Your task to perform on an android device: Open privacy settings Image 0: 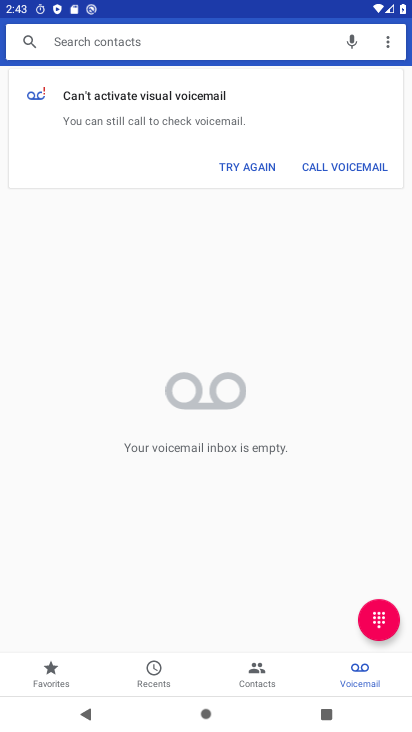
Step 0: press home button
Your task to perform on an android device: Open privacy settings Image 1: 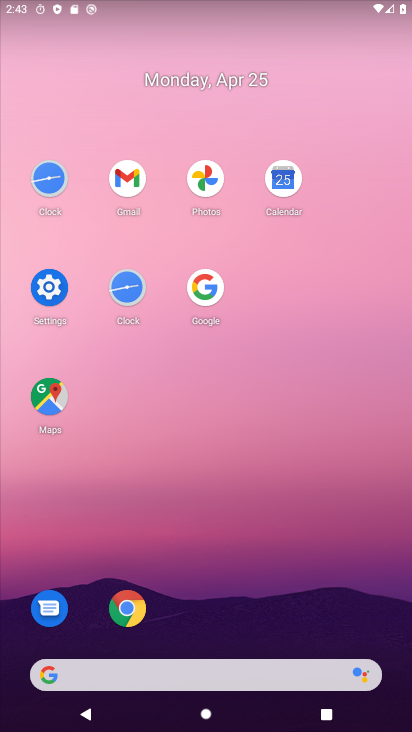
Step 1: click (55, 292)
Your task to perform on an android device: Open privacy settings Image 2: 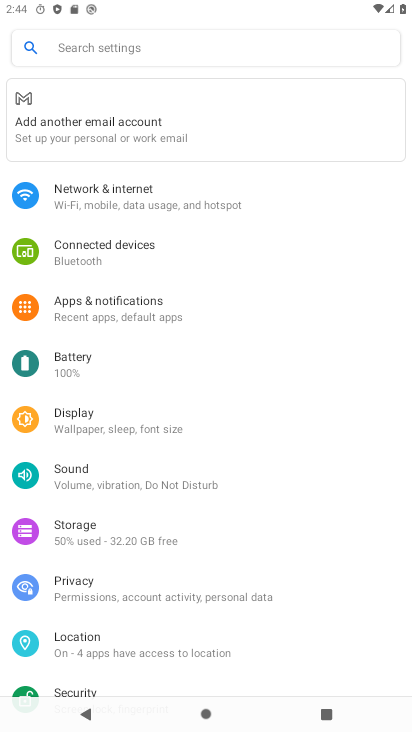
Step 2: click (191, 584)
Your task to perform on an android device: Open privacy settings Image 3: 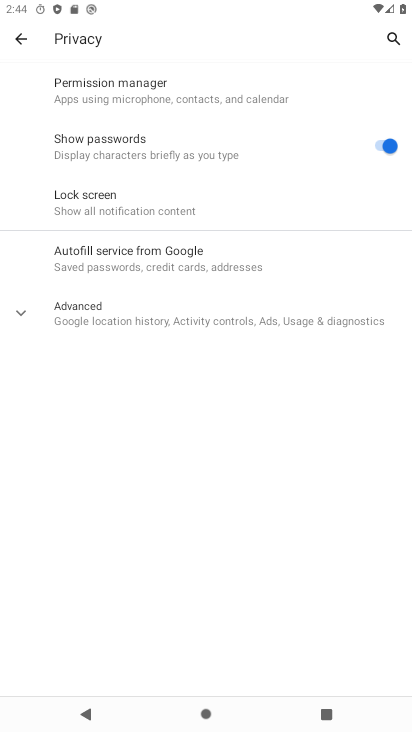
Step 3: task complete